Your task to perform on an android device: Check the settings for the Amazon Prime Video app Image 0: 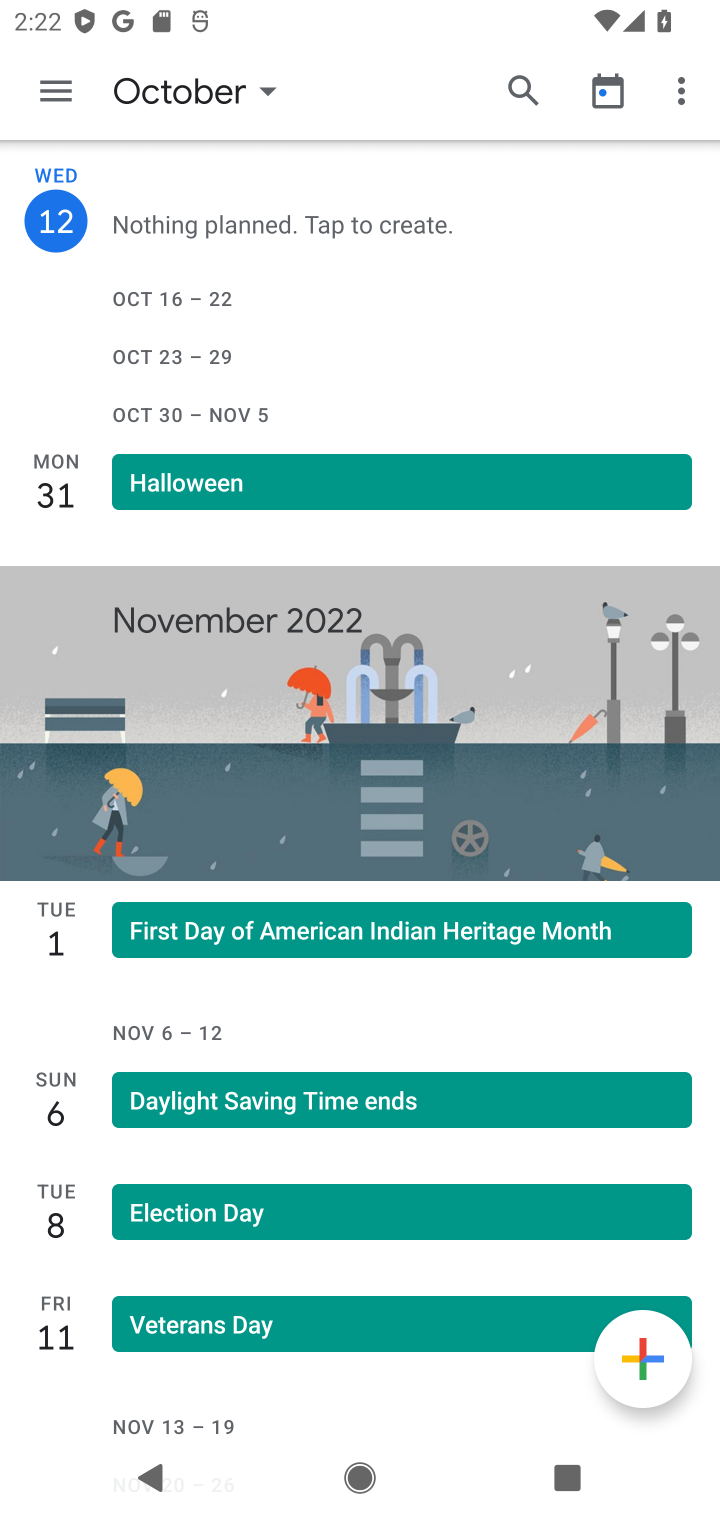
Step 0: press home button
Your task to perform on an android device: Check the settings for the Amazon Prime Video app Image 1: 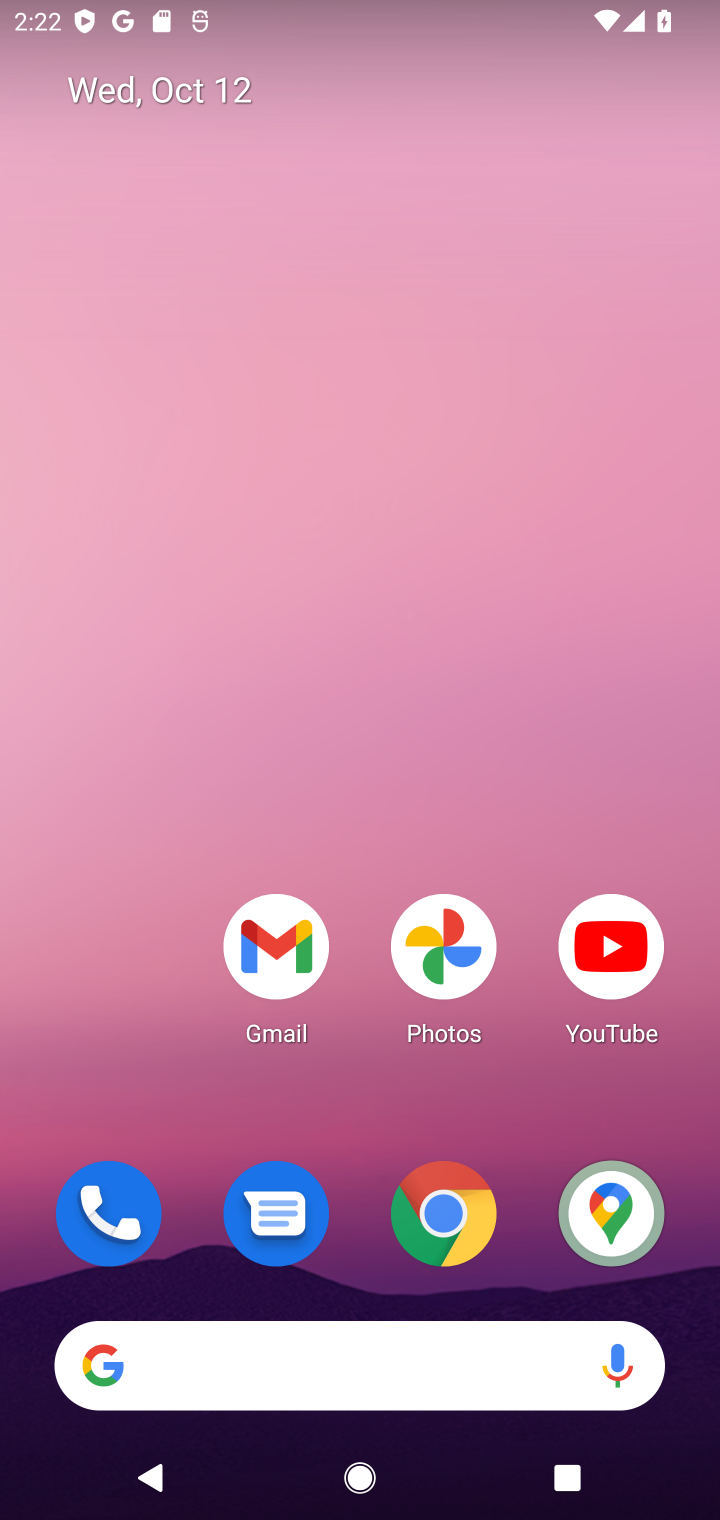
Step 1: task complete